Your task to perform on an android device: all mails in gmail Image 0: 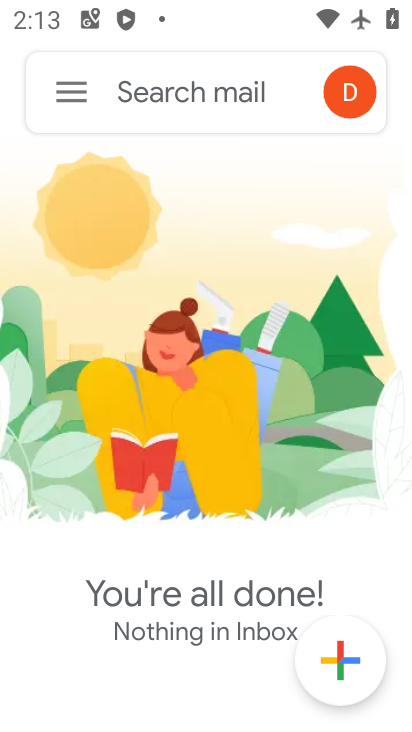
Step 0: press home button
Your task to perform on an android device: all mails in gmail Image 1: 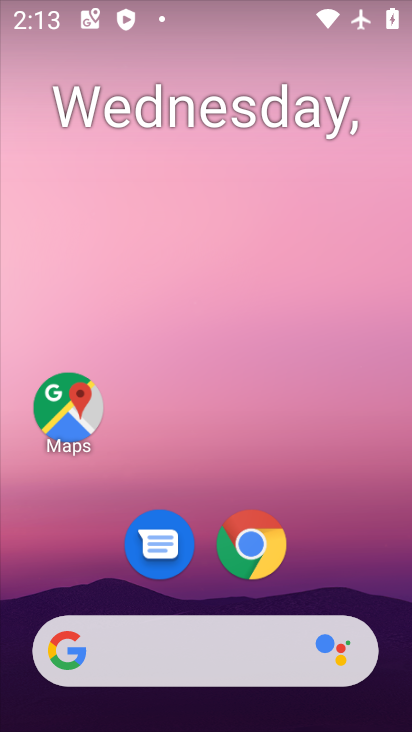
Step 1: drag from (360, 559) to (331, 104)
Your task to perform on an android device: all mails in gmail Image 2: 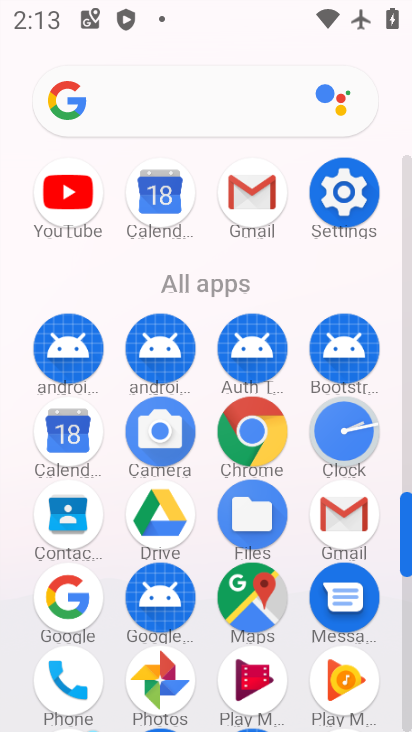
Step 2: click (263, 210)
Your task to perform on an android device: all mails in gmail Image 3: 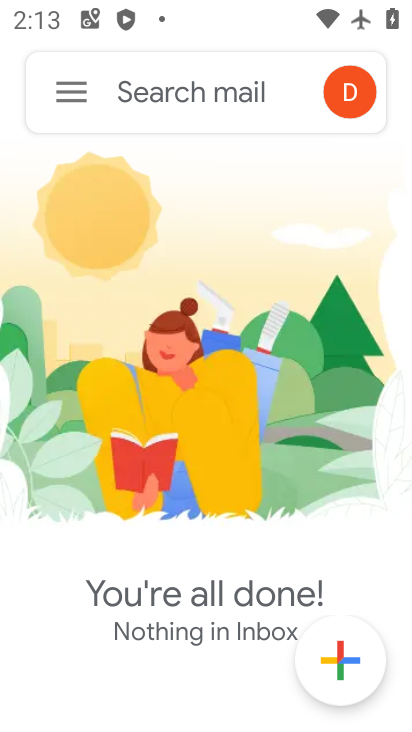
Step 3: click (72, 108)
Your task to perform on an android device: all mails in gmail Image 4: 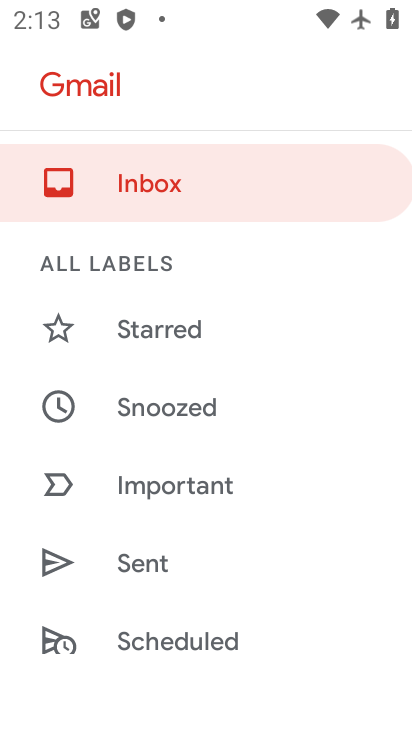
Step 4: drag from (178, 615) to (241, 183)
Your task to perform on an android device: all mails in gmail Image 5: 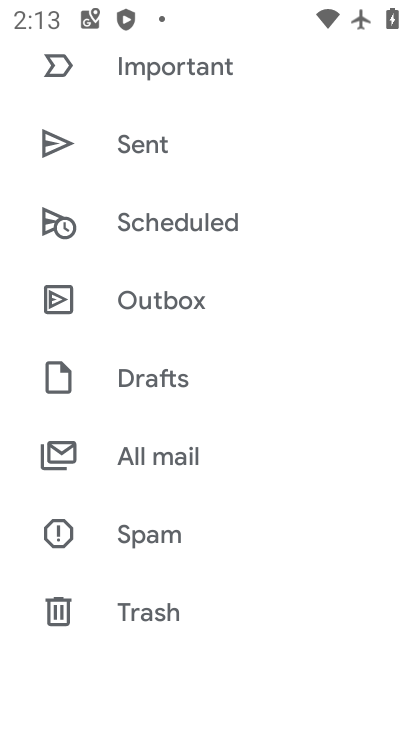
Step 5: click (194, 474)
Your task to perform on an android device: all mails in gmail Image 6: 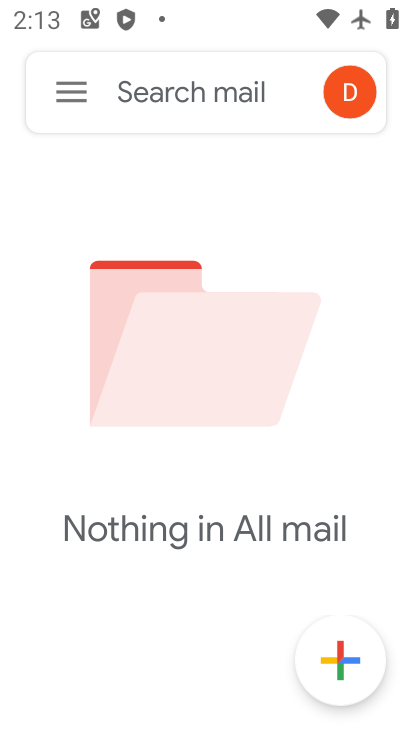
Step 6: task complete